Your task to perform on an android device: Open settings Image 0: 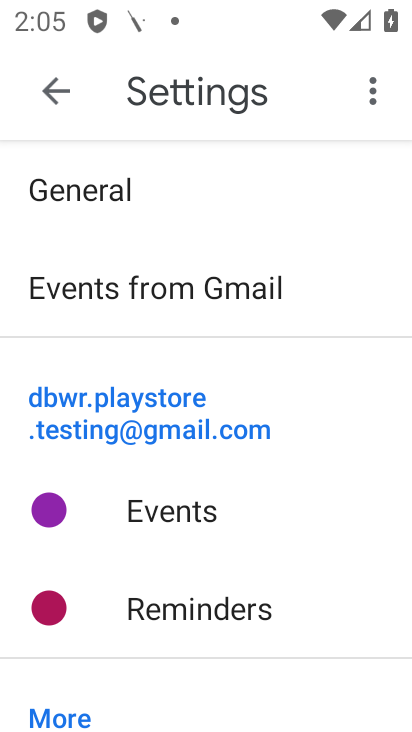
Step 0: press home button
Your task to perform on an android device: Open settings Image 1: 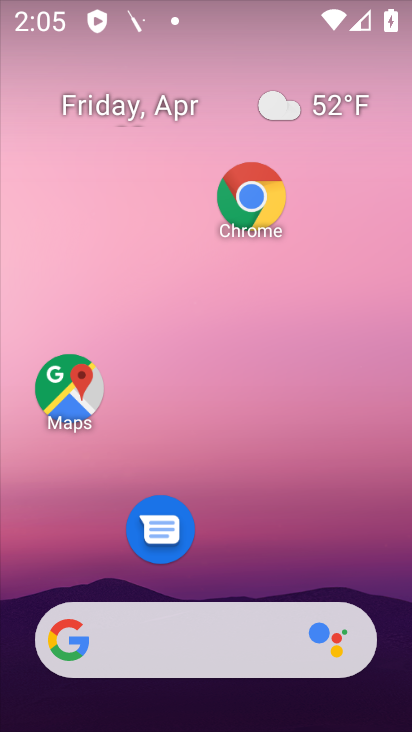
Step 1: drag from (234, 561) to (244, 155)
Your task to perform on an android device: Open settings Image 2: 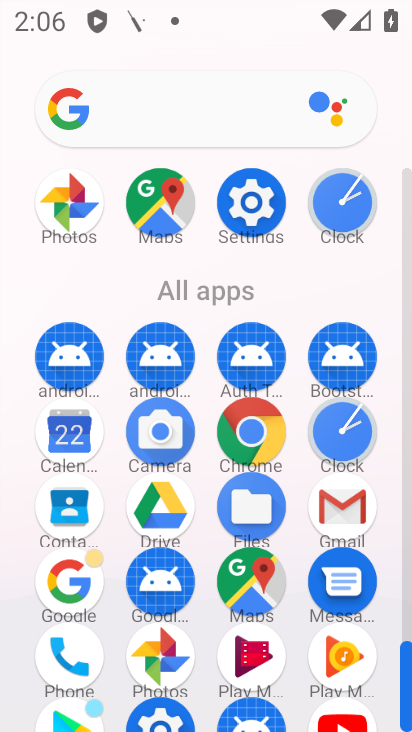
Step 2: click (241, 207)
Your task to perform on an android device: Open settings Image 3: 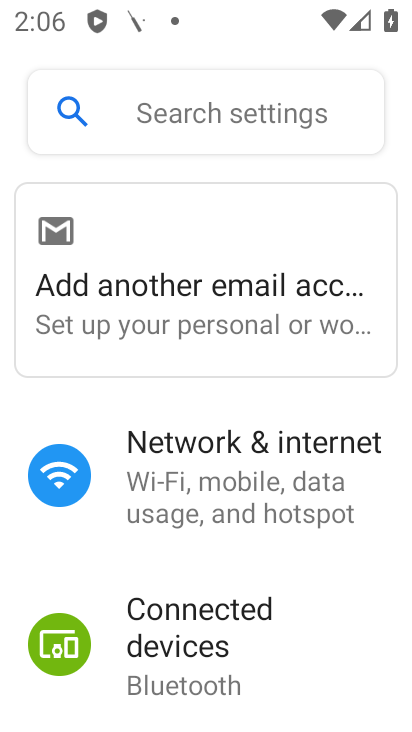
Step 3: task complete